Your task to perform on an android device: toggle notifications settings in the gmail app Image 0: 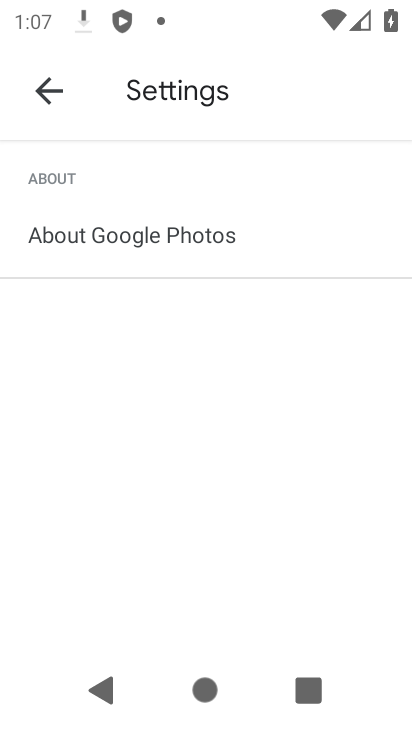
Step 0: press home button
Your task to perform on an android device: toggle notifications settings in the gmail app Image 1: 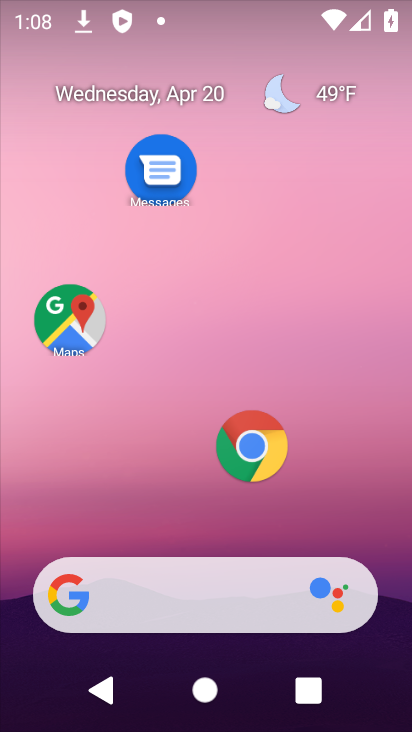
Step 1: drag from (193, 541) to (204, 61)
Your task to perform on an android device: toggle notifications settings in the gmail app Image 2: 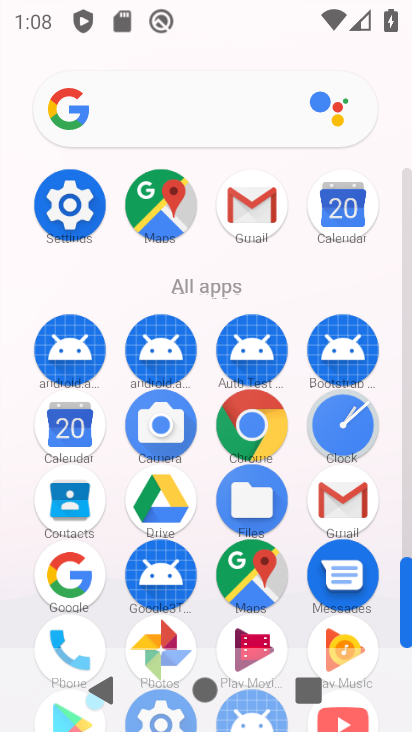
Step 2: click (71, 196)
Your task to perform on an android device: toggle notifications settings in the gmail app Image 3: 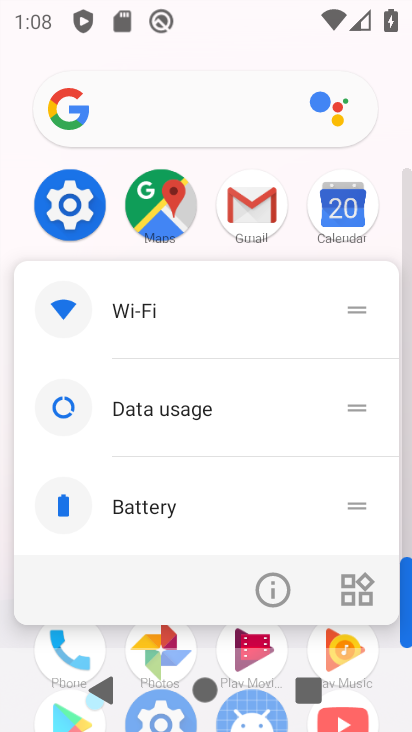
Step 3: click (64, 199)
Your task to perform on an android device: toggle notifications settings in the gmail app Image 4: 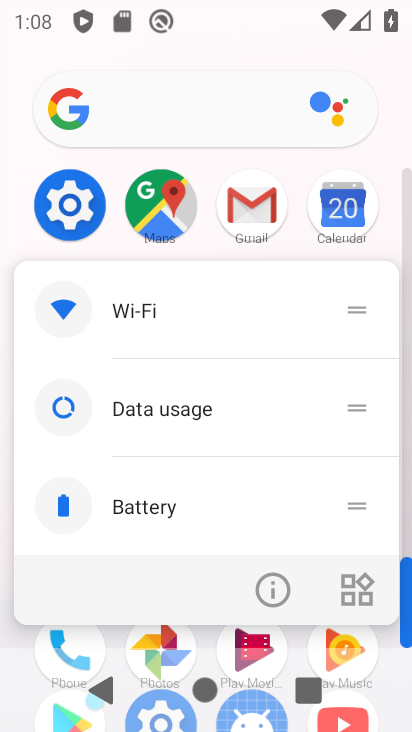
Step 4: click (252, 193)
Your task to perform on an android device: toggle notifications settings in the gmail app Image 5: 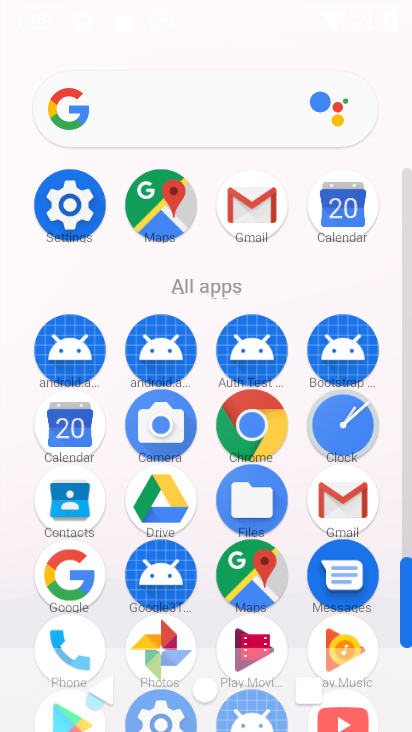
Step 5: click (248, 195)
Your task to perform on an android device: toggle notifications settings in the gmail app Image 6: 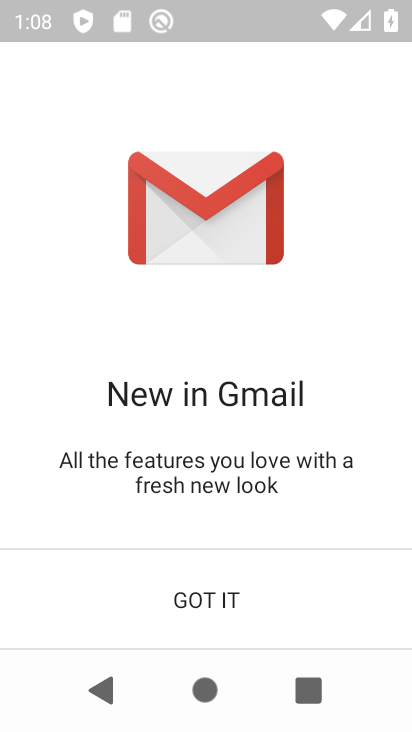
Step 6: click (212, 609)
Your task to perform on an android device: toggle notifications settings in the gmail app Image 7: 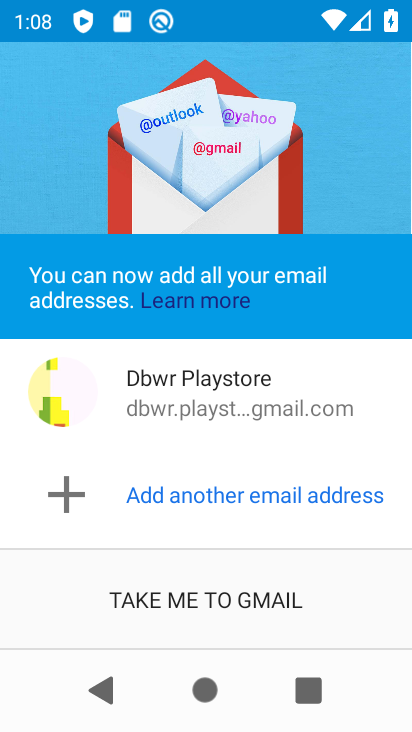
Step 7: click (205, 614)
Your task to perform on an android device: toggle notifications settings in the gmail app Image 8: 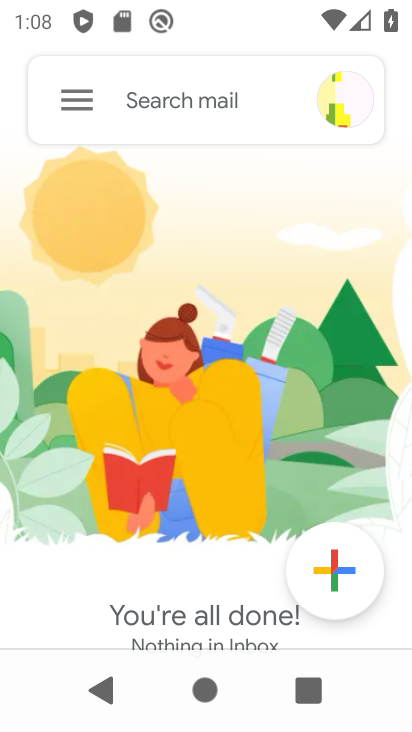
Step 8: click (70, 89)
Your task to perform on an android device: toggle notifications settings in the gmail app Image 9: 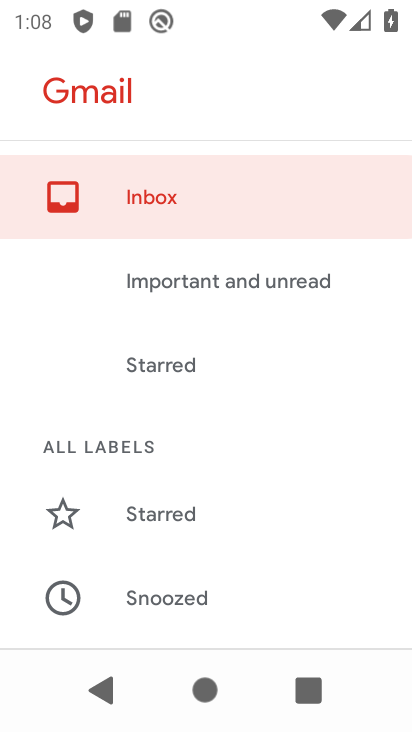
Step 9: drag from (241, 612) to (235, 122)
Your task to perform on an android device: toggle notifications settings in the gmail app Image 10: 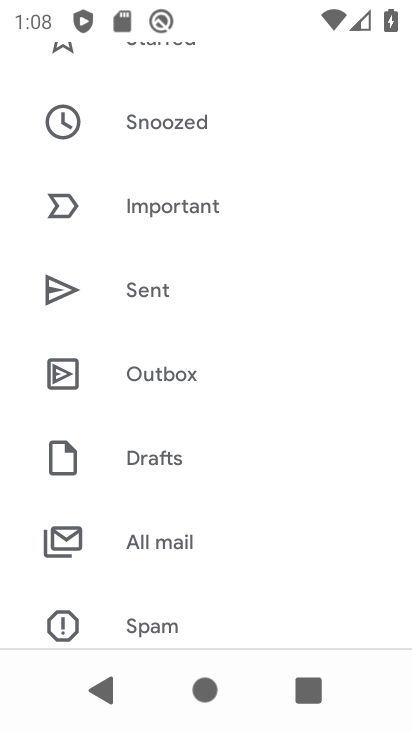
Step 10: drag from (211, 617) to (235, 50)
Your task to perform on an android device: toggle notifications settings in the gmail app Image 11: 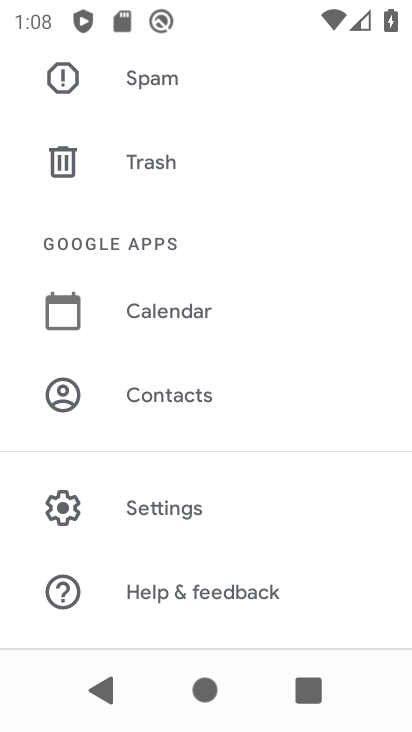
Step 11: click (213, 503)
Your task to perform on an android device: toggle notifications settings in the gmail app Image 12: 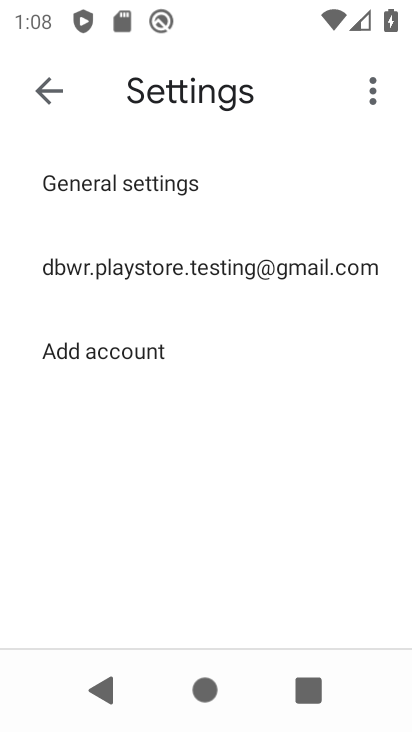
Step 12: click (220, 174)
Your task to perform on an android device: toggle notifications settings in the gmail app Image 13: 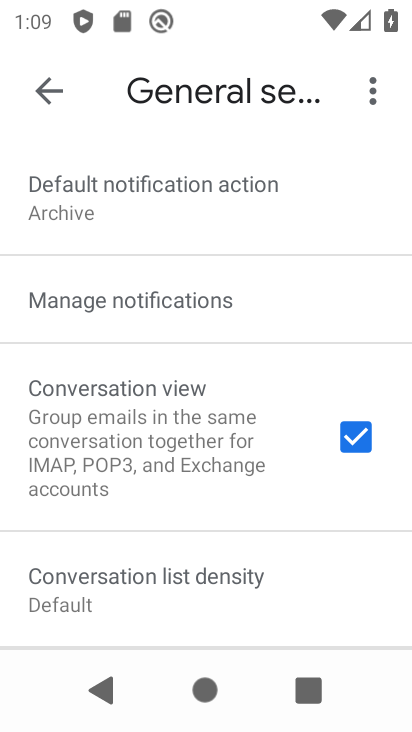
Step 13: click (242, 300)
Your task to perform on an android device: toggle notifications settings in the gmail app Image 14: 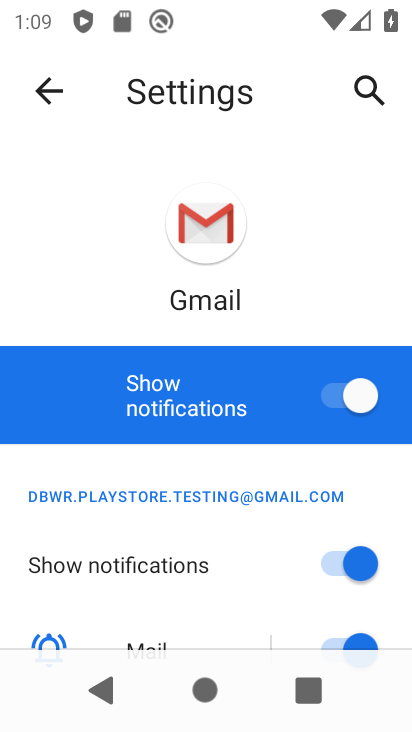
Step 14: click (337, 389)
Your task to perform on an android device: toggle notifications settings in the gmail app Image 15: 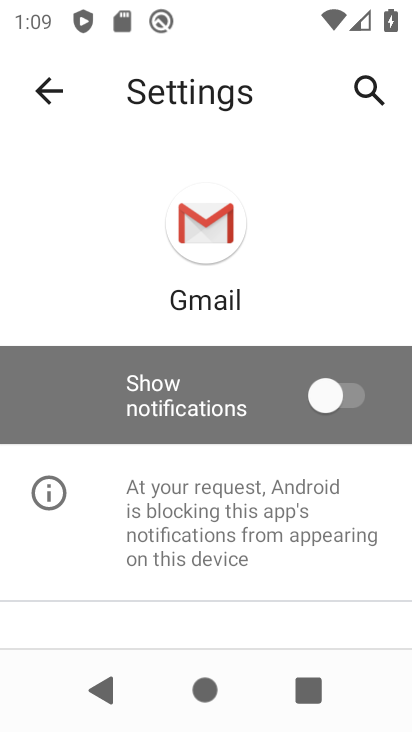
Step 15: task complete